Your task to perform on an android device: Search for Italian restaurants on Maps Image 0: 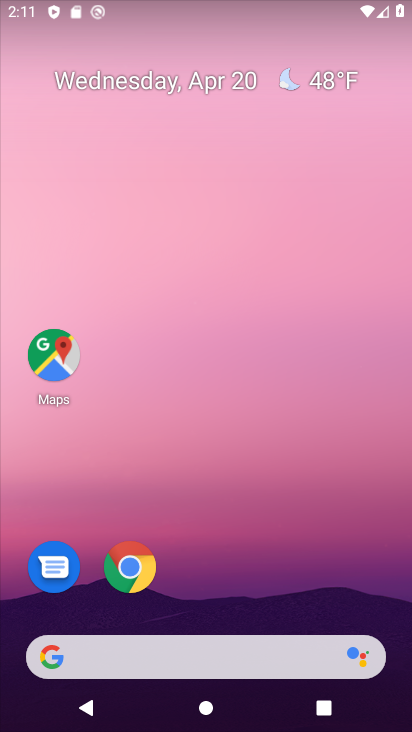
Step 0: click (46, 352)
Your task to perform on an android device: Search for Italian restaurants on Maps Image 1: 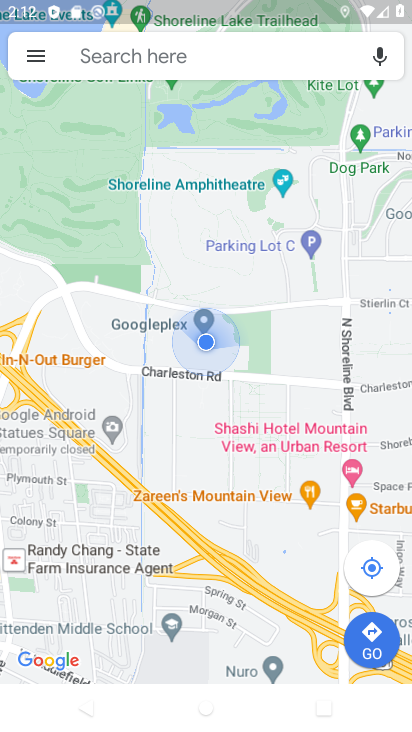
Step 1: click (218, 55)
Your task to perform on an android device: Search for Italian restaurants on Maps Image 2: 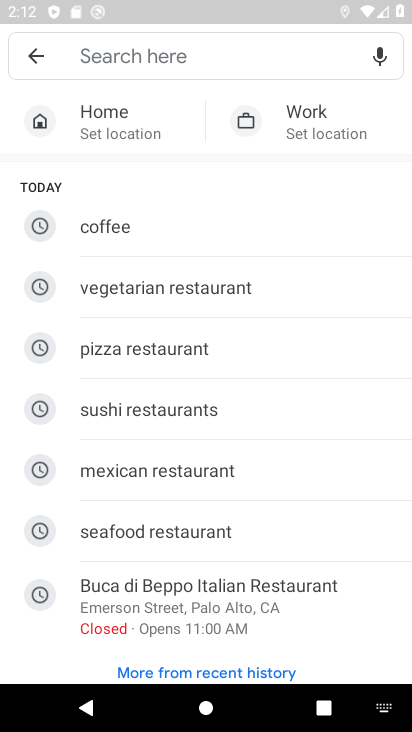
Step 2: type "Italian Restaurants"
Your task to perform on an android device: Search for Italian restaurants on Maps Image 3: 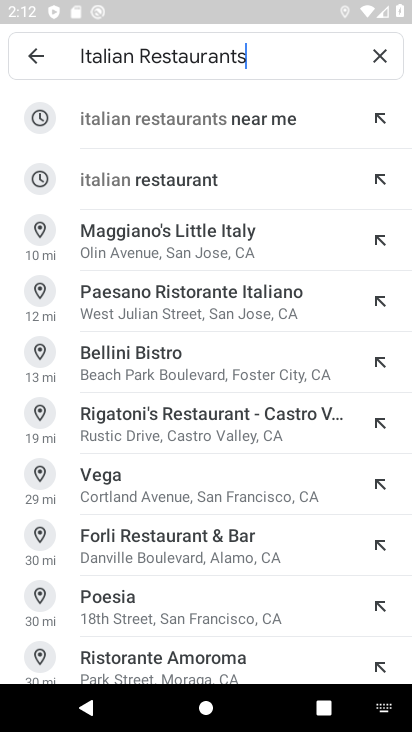
Step 3: click (224, 178)
Your task to perform on an android device: Search for Italian restaurants on Maps Image 4: 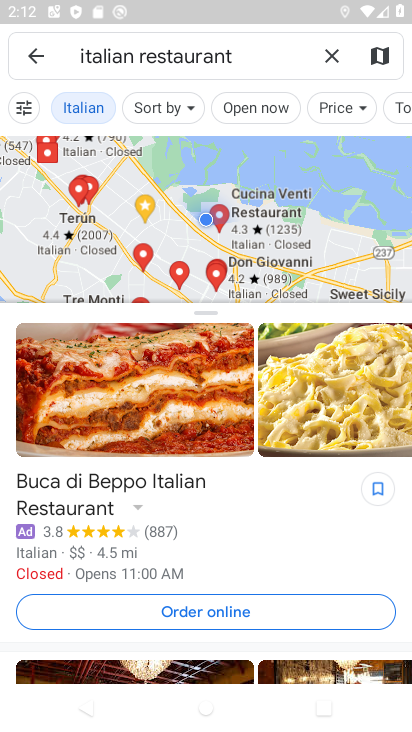
Step 4: task complete